Your task to perform on an android device: Clear the cart on bestbuy.com. Add apple airpods pro to the cart on bestbuy.com Image 0: 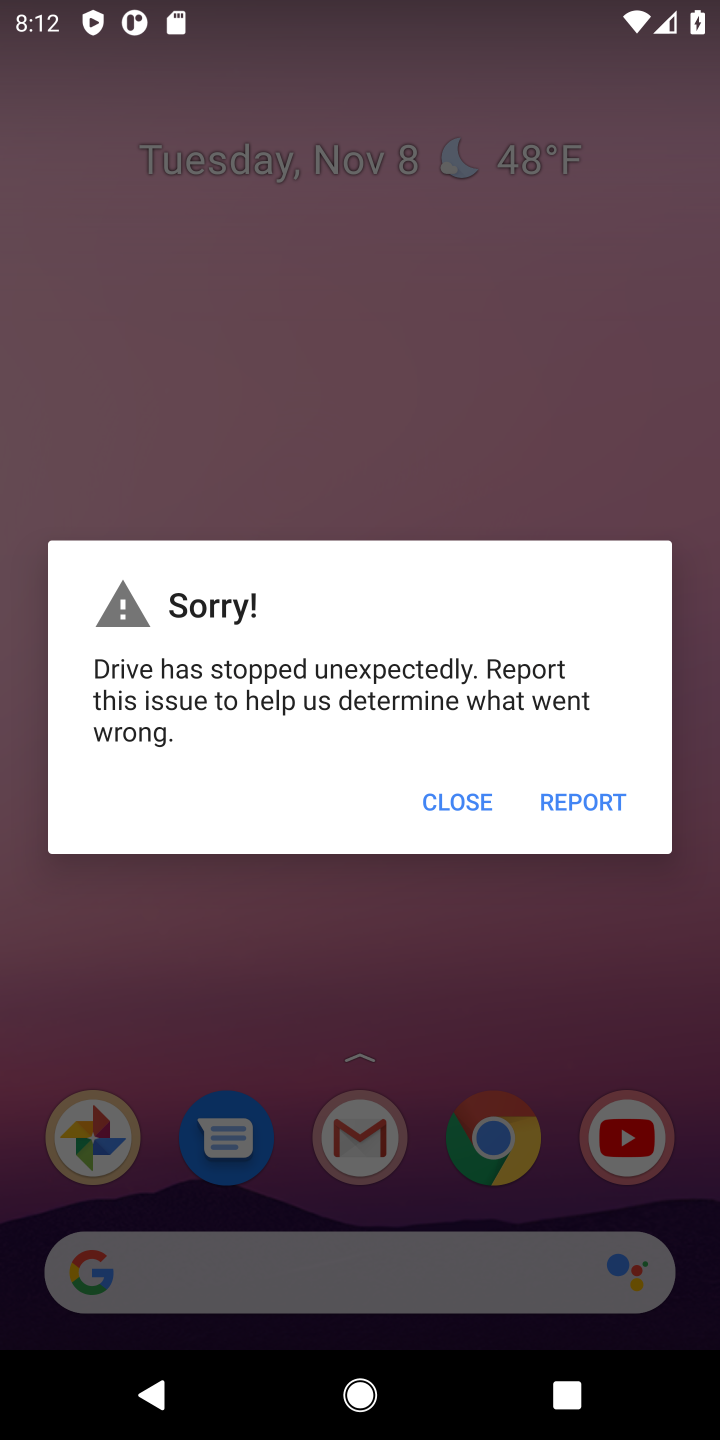
Step 0: click (454, 798)
Your task to perform on an android device: Clear the cart on bestbuy.com. Add apple airpods pro to the cart on bestbuy.com Image 1: 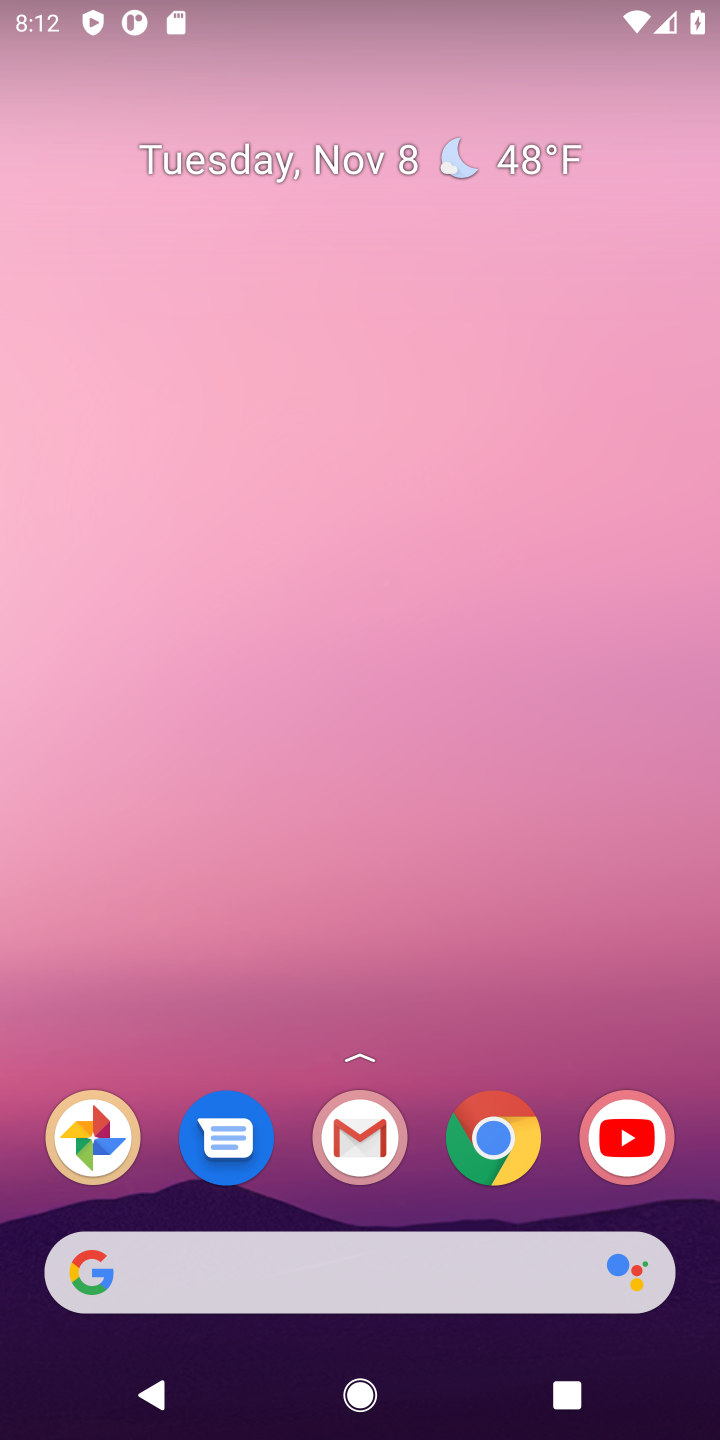
Step 1: click (478, 1128)
Your task to perform on an android device: Clear the cart on bestbuy.com. Add apple airpods pro to the cart on bestbuy.com Image 2: 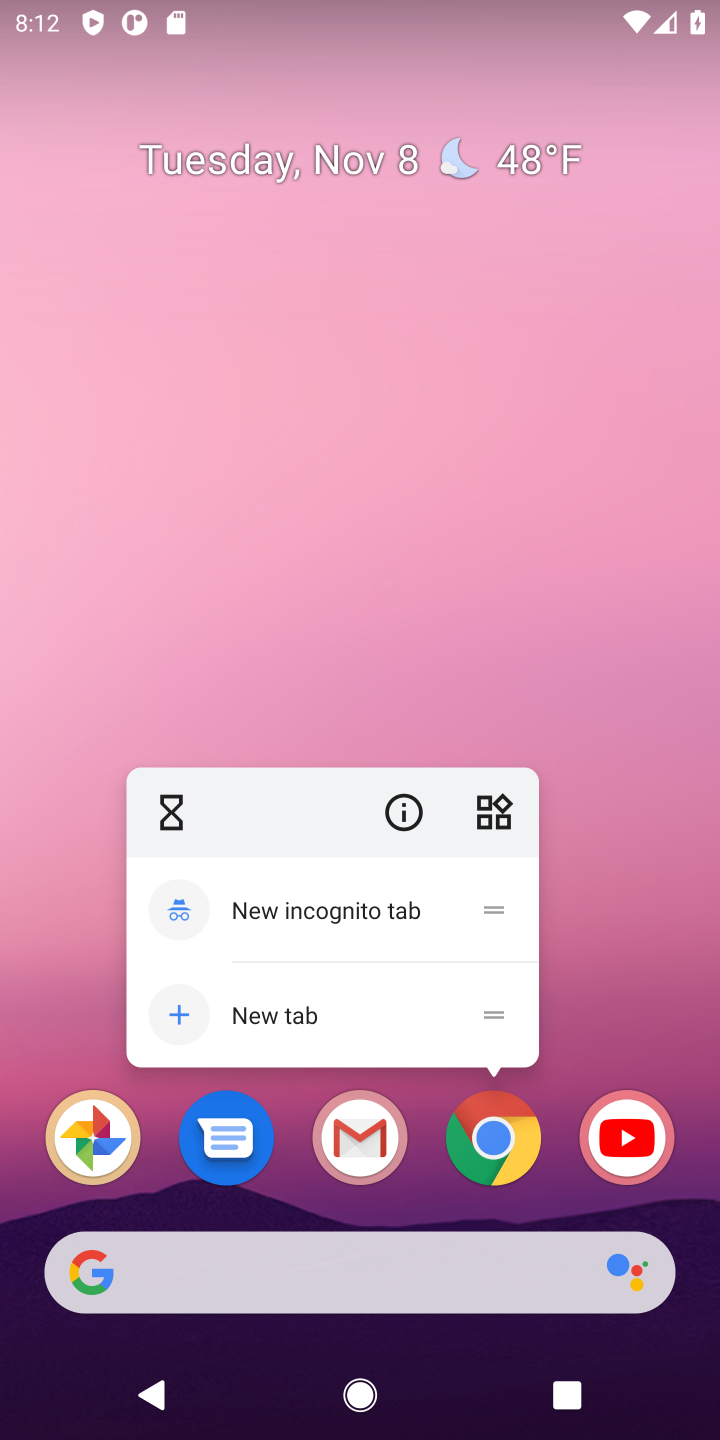
Step 2: click (478, 1136)
Your task to perform on an android device: Clear the cart on bestbuy.com. Add apple airpods pro to the cart on bestbuy.com Image 3: 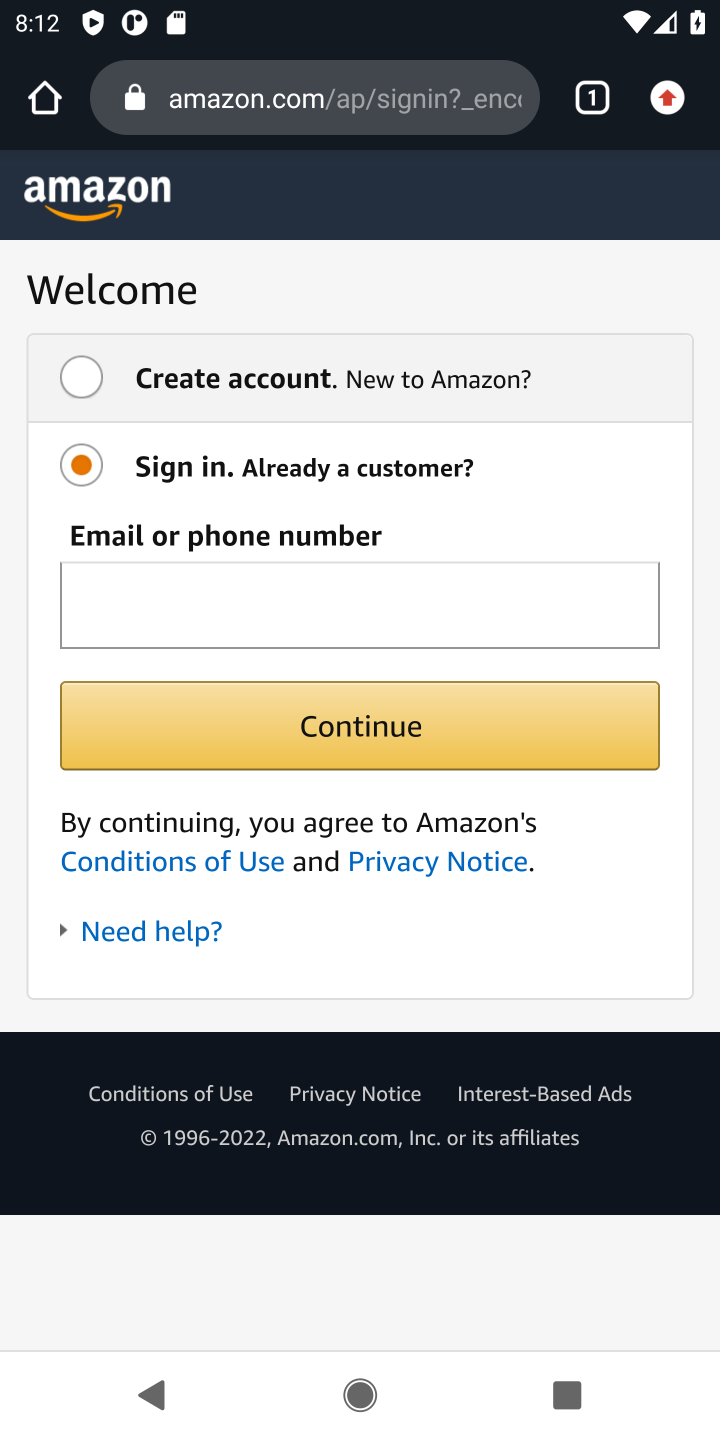
Step 3: click (380, 93)
Your task to perform on an android device: Clear the cart on bestbuy.com. Add apple airpods pro to the cart on bestbuy.com Image 4: 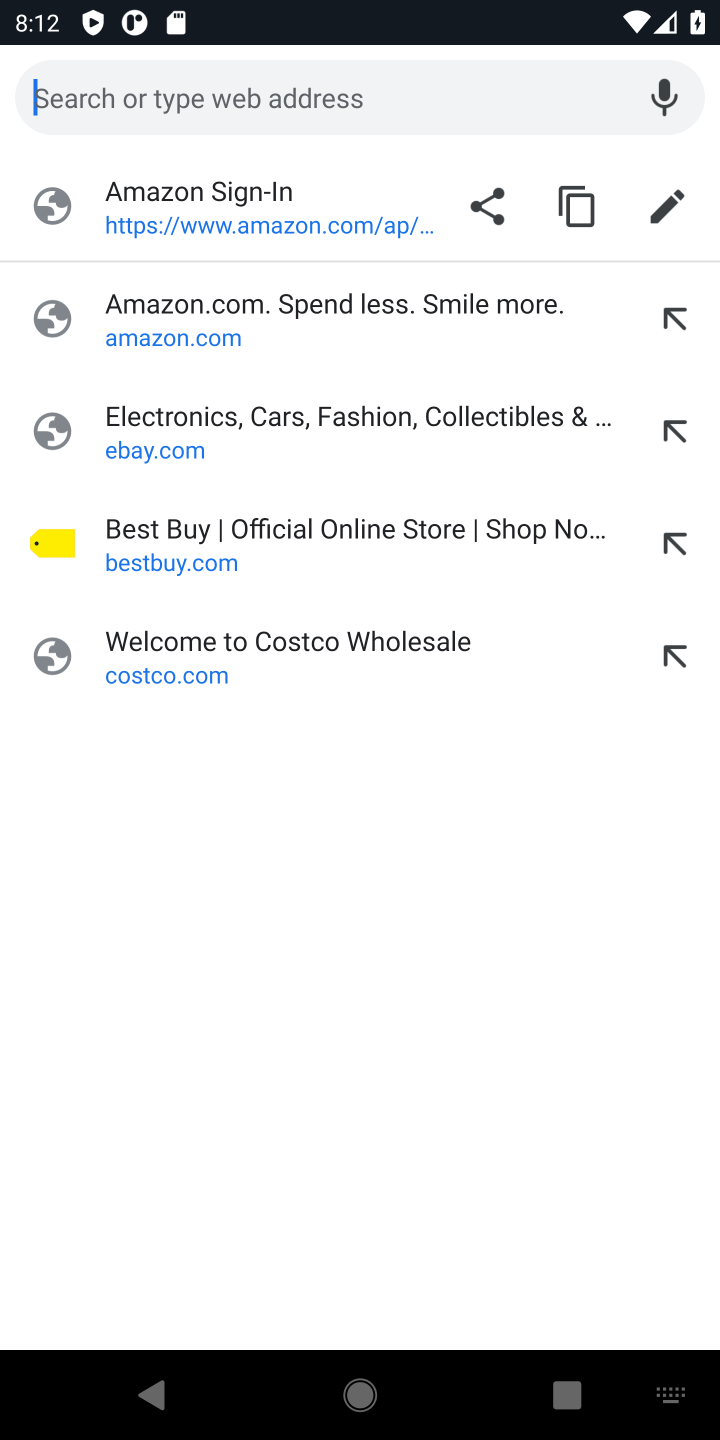
Step 4: click (155, 555)
Your task to perform on an android device: Clear the cart on bestbuy.com. Add apple airpods pro to the cart on bestbuy.com Image 5: 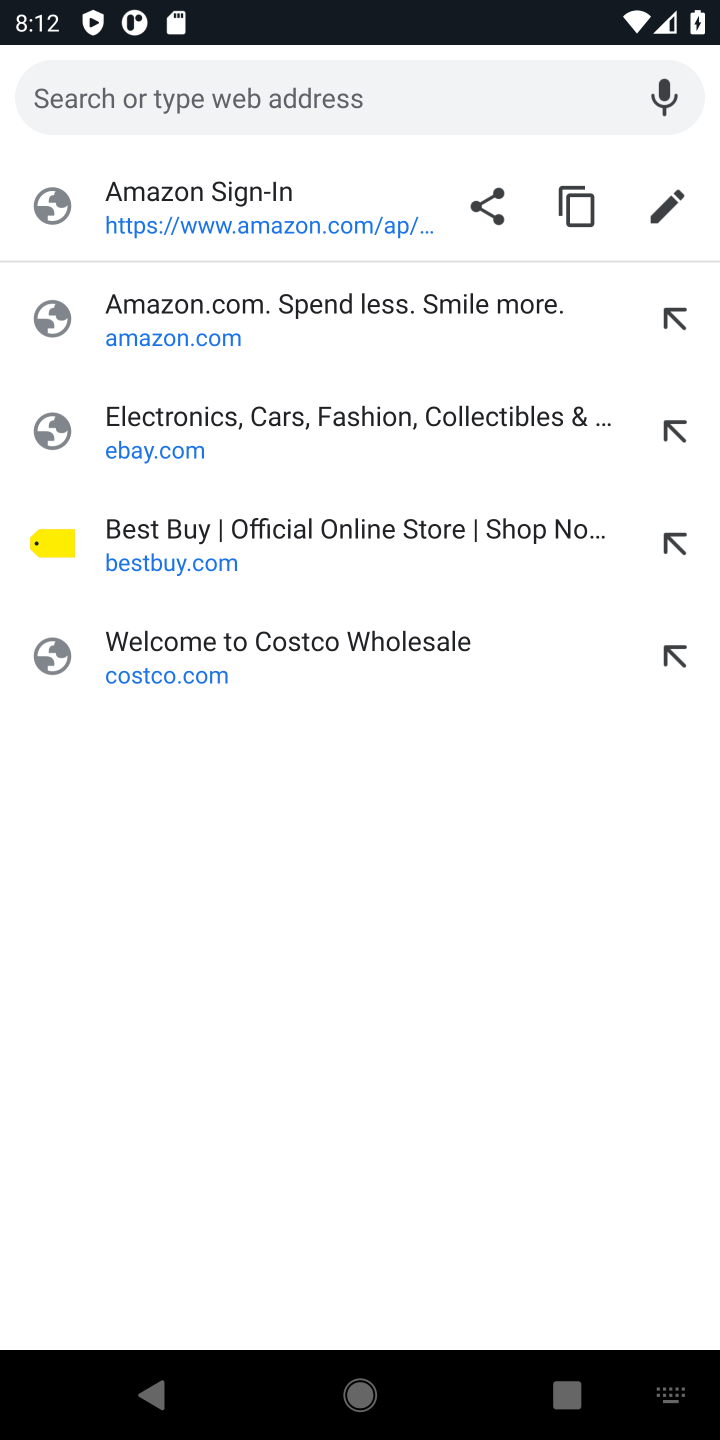
Step 5: click (185, 554)
Your task to perform on an android device: Clear the cart on bestbuy.com. Add apple airpods pro to the cart on bestbuy.com Image 6: 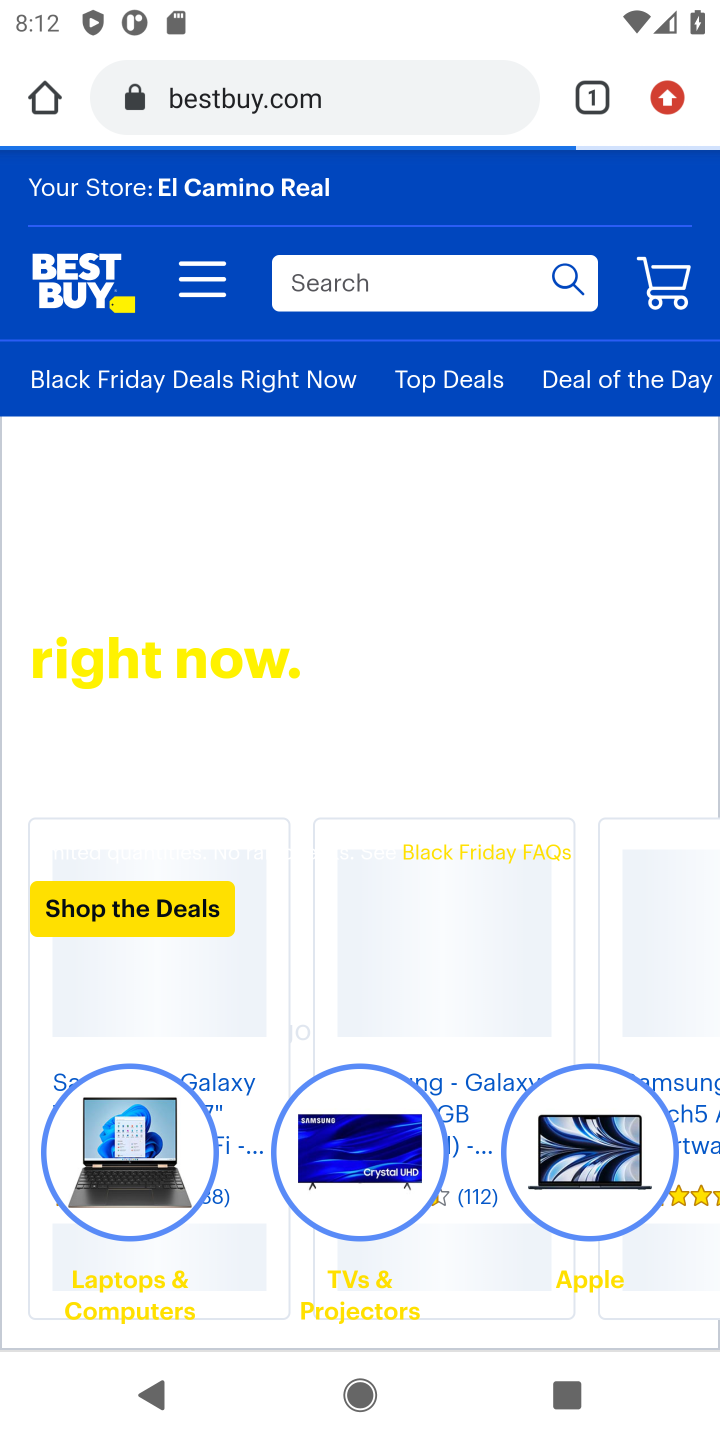
Step 6: click (449, 278)
Your task to perform on an android device: Clear the cart on bestbuy.com. Add apple airpods pro to the cart on bestbuy.com Image 7: 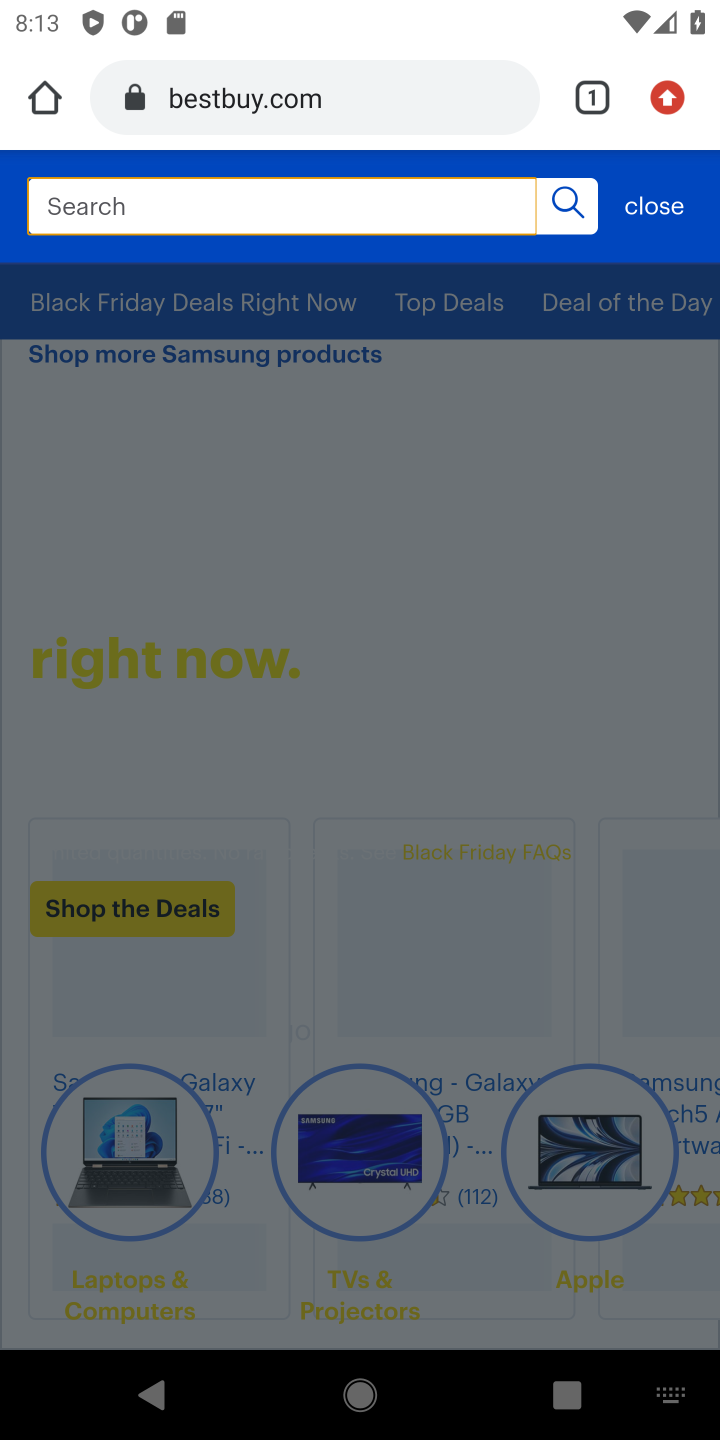
Step 7: type "apple airpods pro"
Your task to perform on an android device: Clear the cart on bestbuy.com. Add apple airpods pro to the cart on bestbuy.com Image 8: 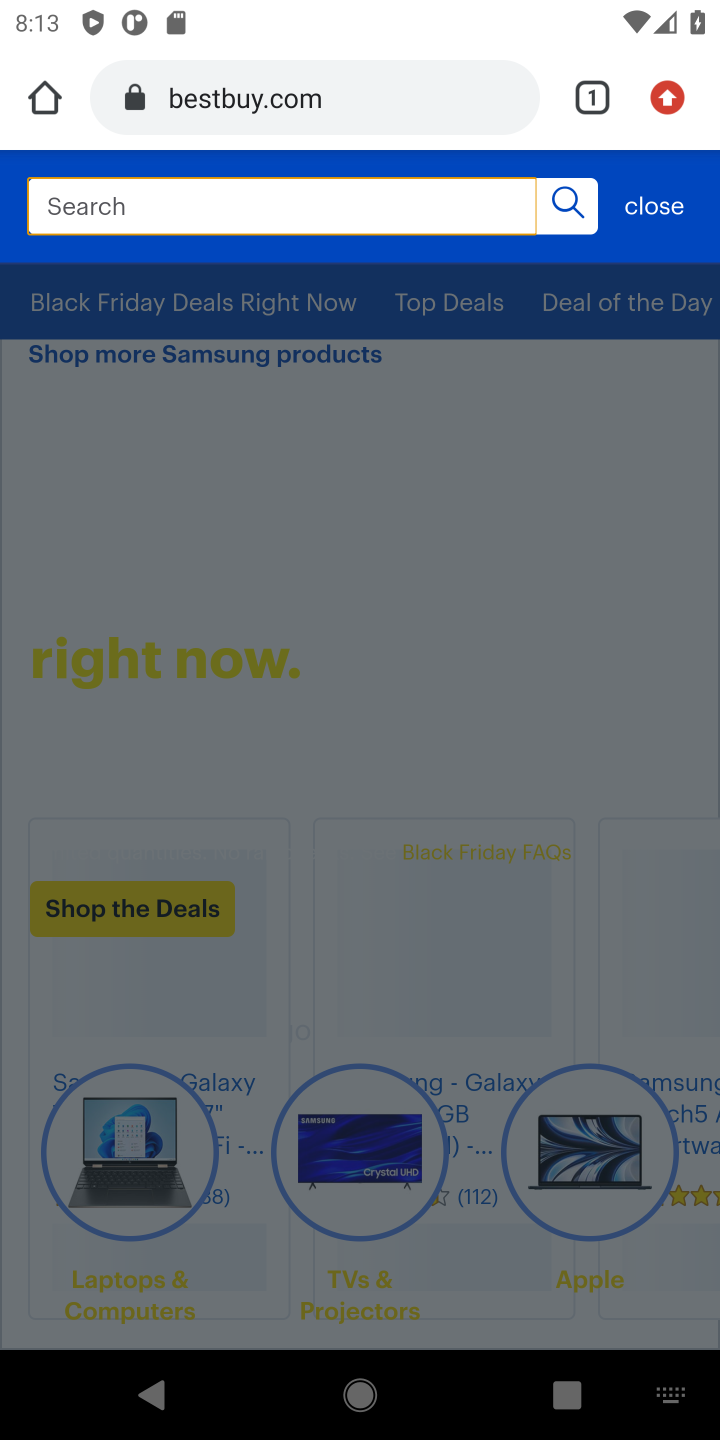
Step 8: press enter
Your task to perform on an android device: Clear the cart on bestbuy.com. Add apple airpods pro to the cart on bestbuy.com Image 9: 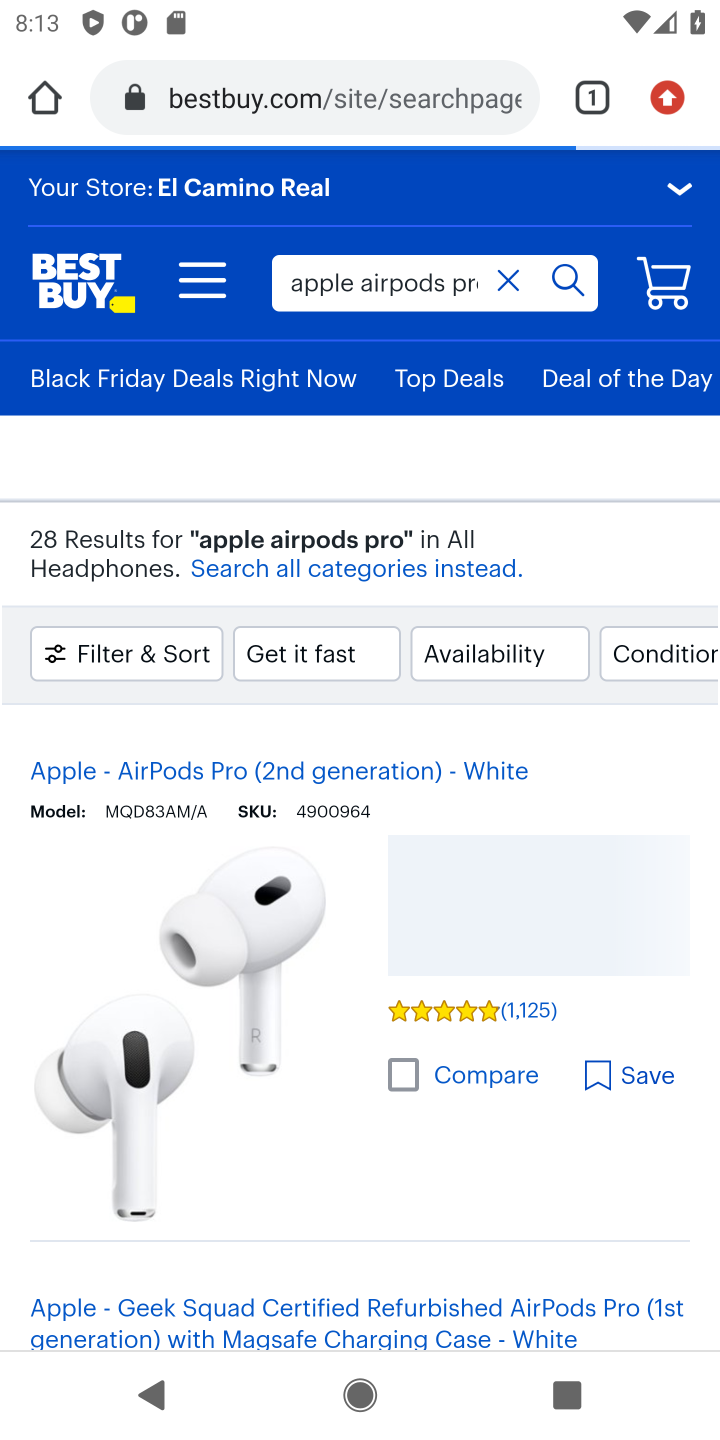
Step 9: drag from (299, 1163) to (395, 411)
Your task to perform on an android device: Clear the cart on bestbuy.com. Add apple airpods pro to the cart on bestbuy.com Image 10: 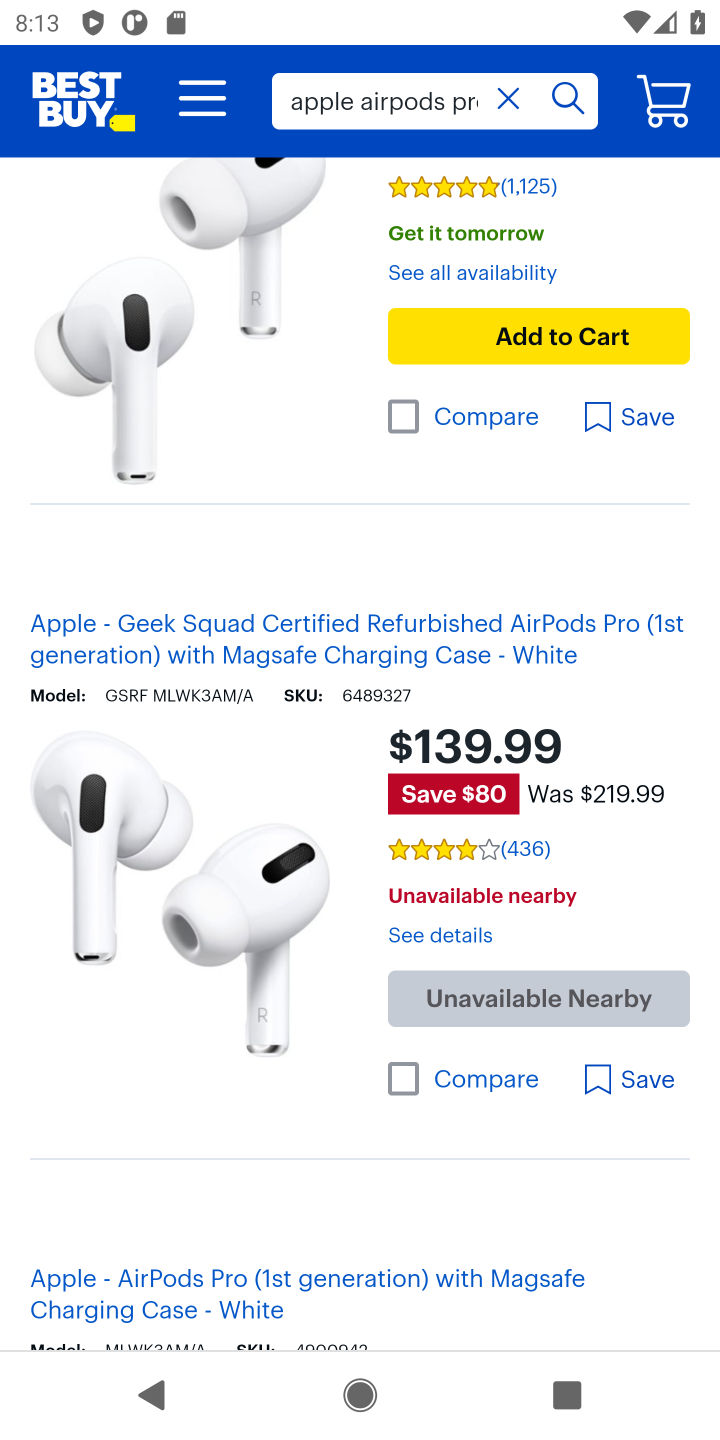
Step 10: click (547, 332)
Your task to perform on an android device: Clear the cart on bestbuy.com. Add apple airpods pro to the cart on bestbuy.com Image 11: 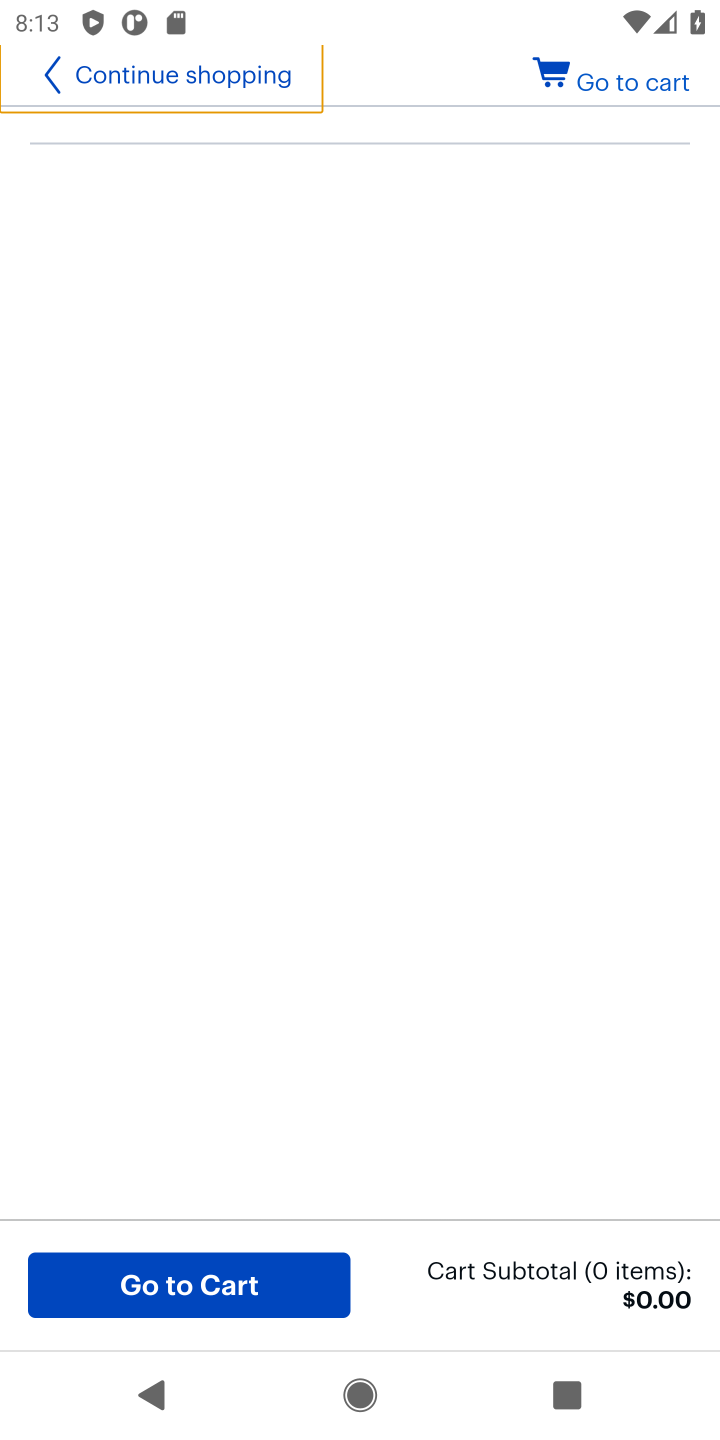
Step 11: click (527, 825)
Your task to perform on an android device: Clear the cart on bestbuy.com. Add apple airpods pro to the cart on bestbuy.com Image 12: 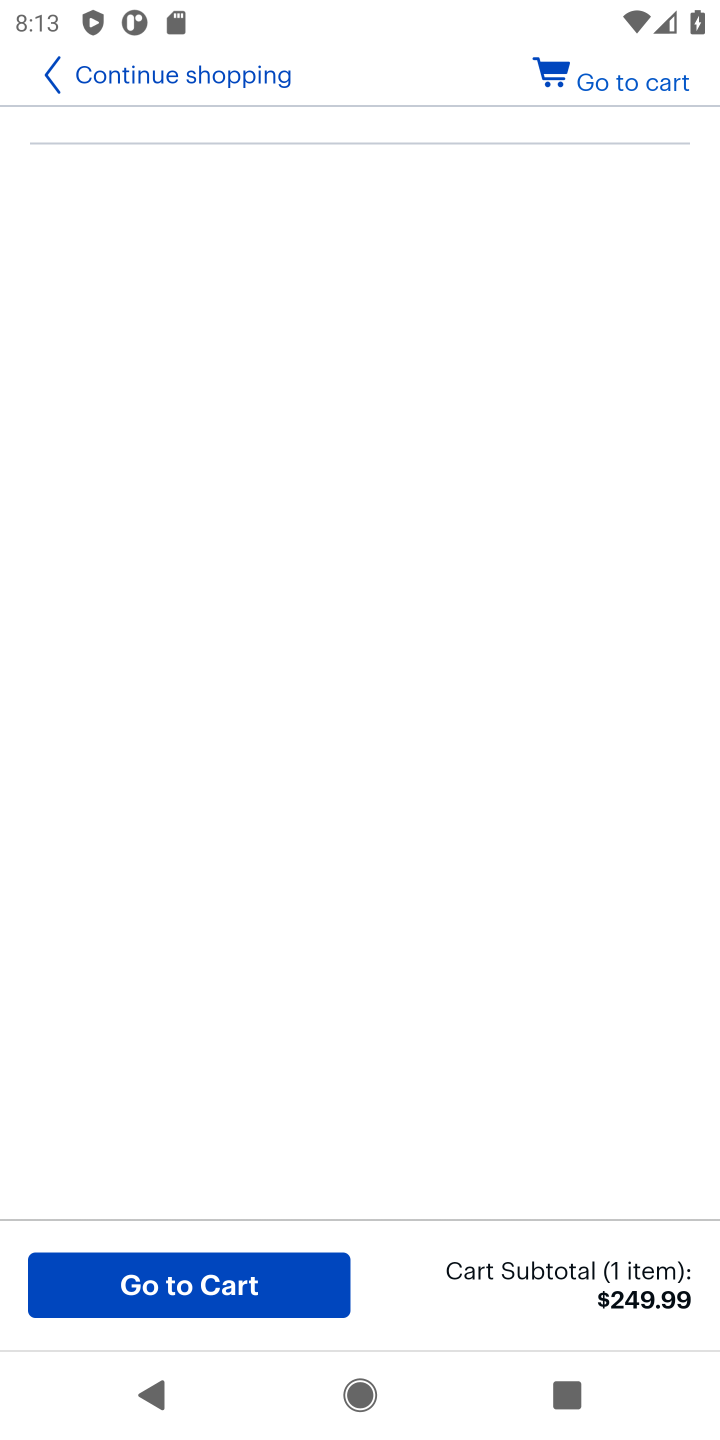
Step 12: click (644, 75)
Your task to perform on an android device: Clear the cart on bestbuy.com. Add apple airpods pro to the cart on bestbuy.com Image 13: 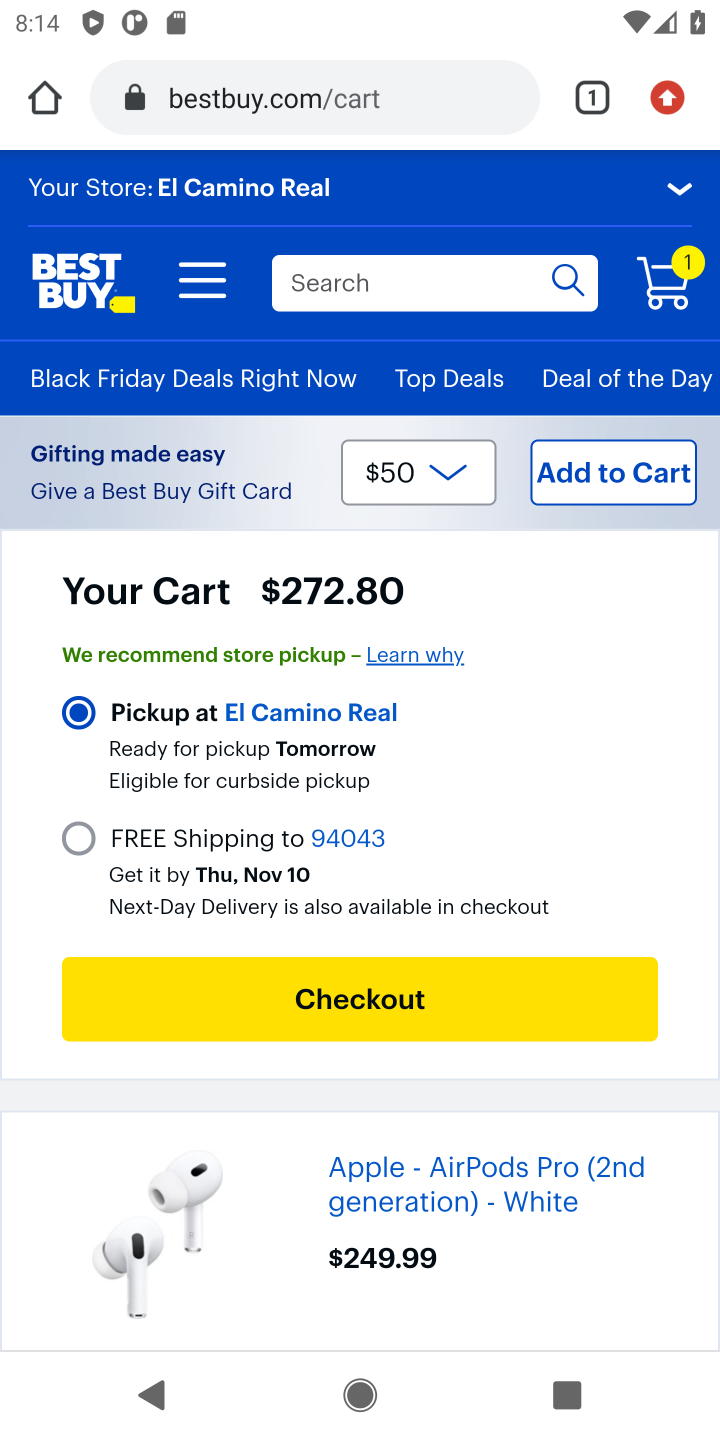
Step 13: task complete